Your task to perform on an android device: check the backup settings in the google photos Image 0: 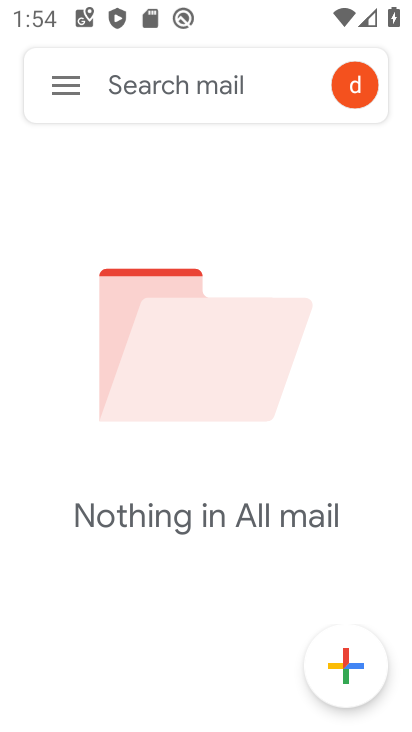
Step 0: press home button
Your task to perform on an android device: check the backup settings in the google photos Image 1: 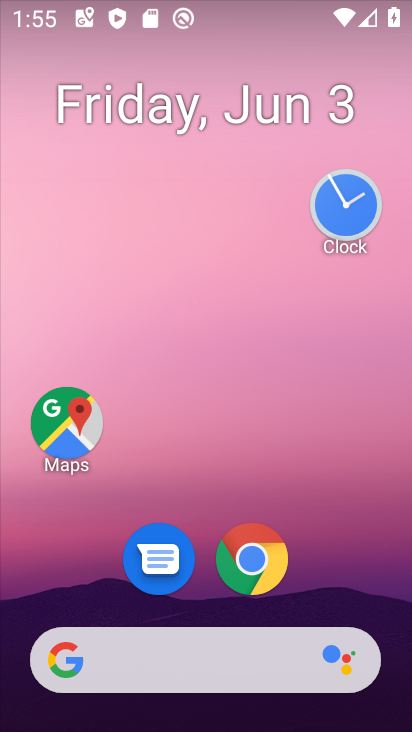
Step 1: drag from (361, 570) to (322, 177)
Your task to perform on an android device: check the backup settings in the google photos Image 2: 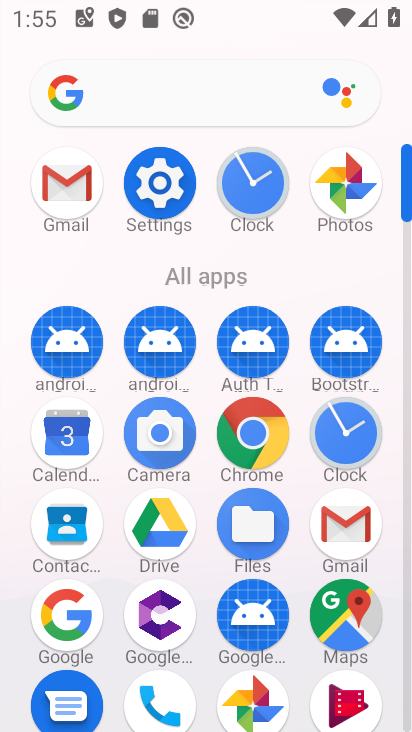
Step 2: click (349, 198)
Your task to perform on an android device: check the backup settings in the google photos Image 3: 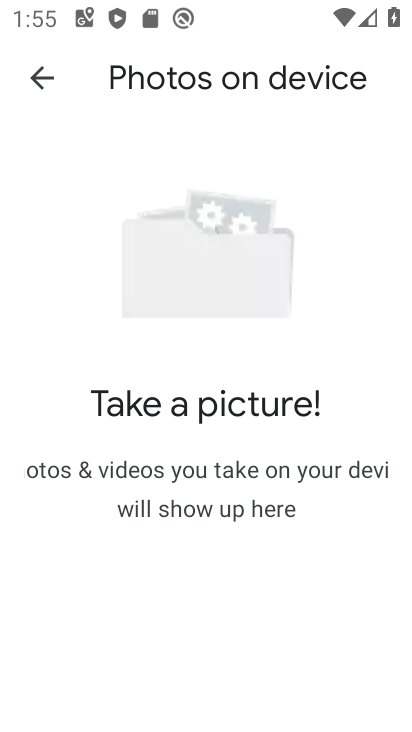
Step 3: click (37, 75)
Your task to perform on an android device: check the backup settings in the google photos Image 4: 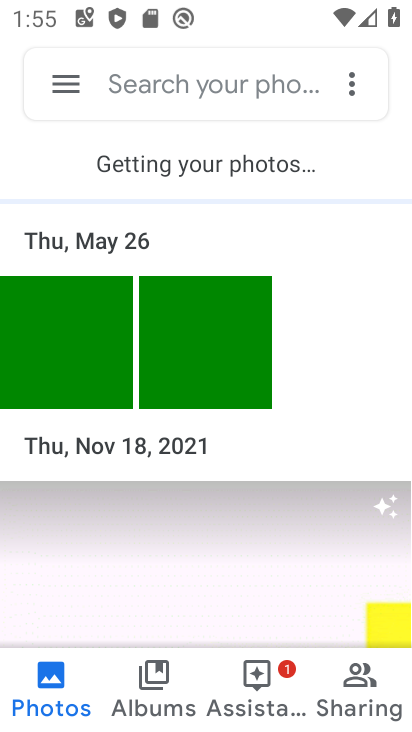
Step 4: click (55, 73)
Your task to perform on an android device: check the backup settings in the google photos Image 5: 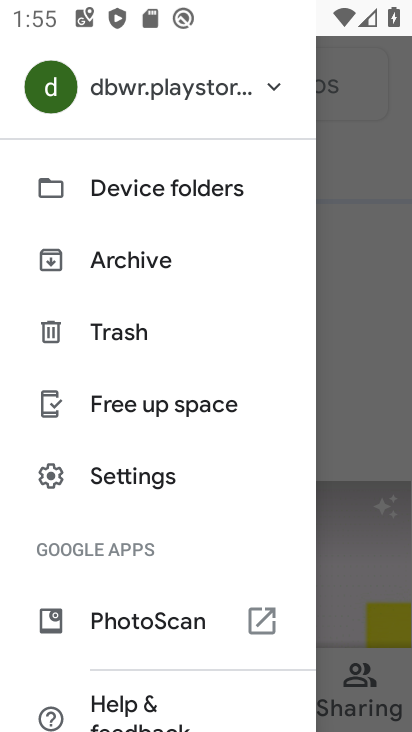
Step 5: click (104, 462)
Your task to perform on an android device: check the backup settings in the google photos Image 6: 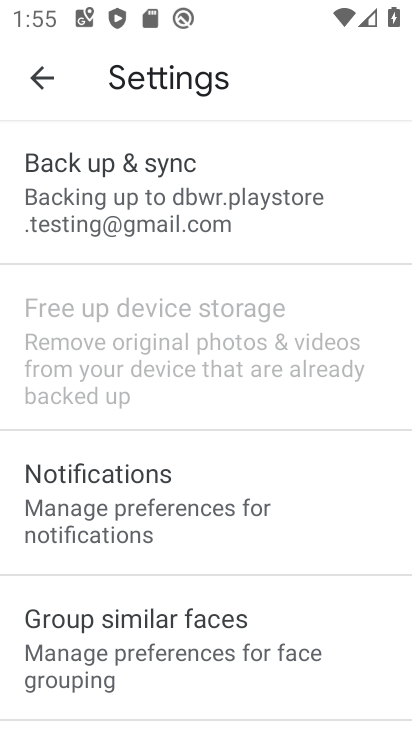
Step 6: click (160, 223)
Your task to perform on an android device: check the backup settings in the google photos Image 7: 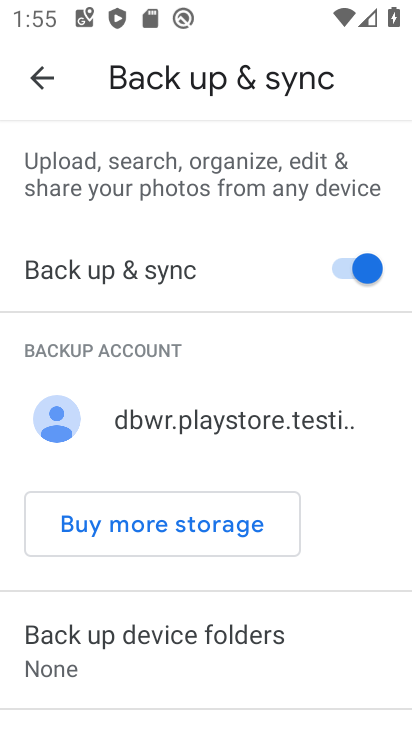
Step 7: task complete